Your task to perform on an android device: check data usage Image 0: 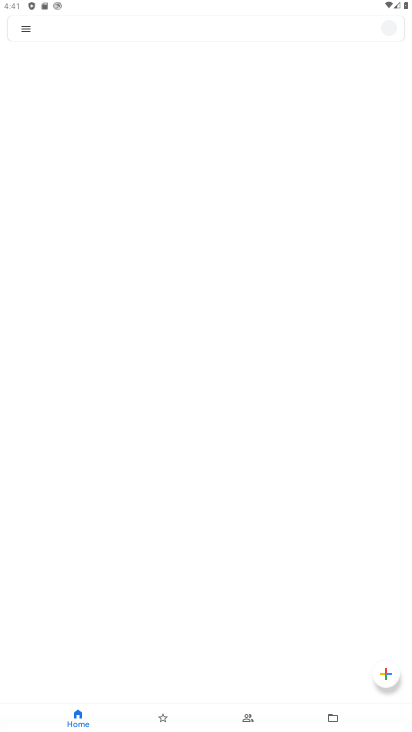
Step 0: press back button
Your task to perform on an android device: check data usage Image 1: 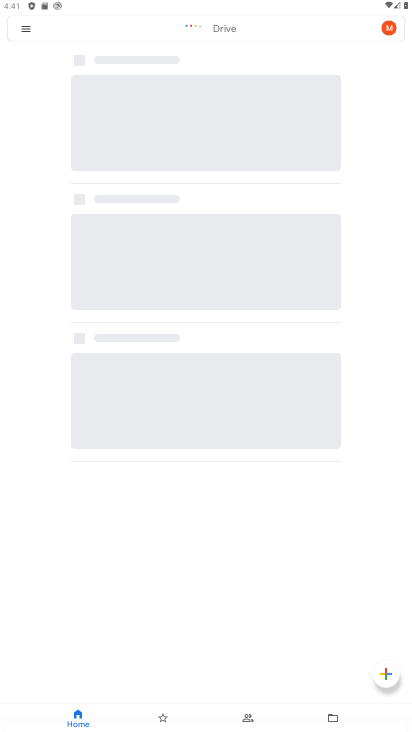
Step 1: press back button
Your task to perform on an android device: check data usage Image 2: 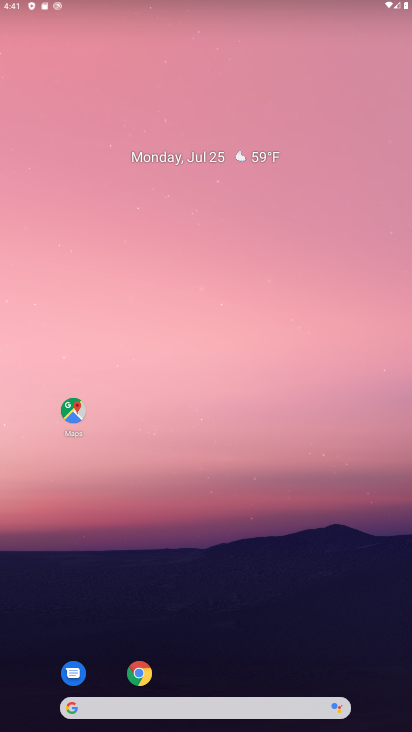
Step 2: press back button
Your task to perform on an android device: check data usage Image 3: 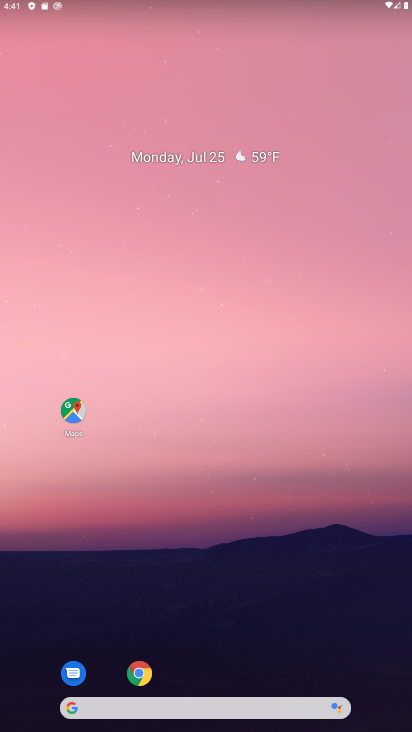
Step 3: press home button
Your task to perform on an android device: check data usage Image 4: 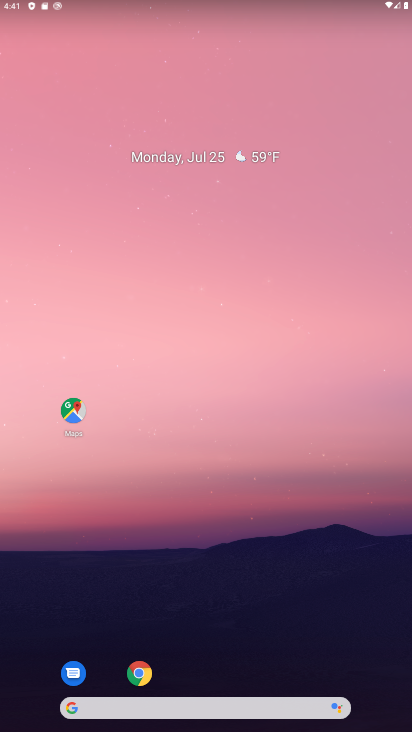
Step 4: drag from (236, 577) to (161, 73)
Your task to perform on an android device: check data usage Image 5: 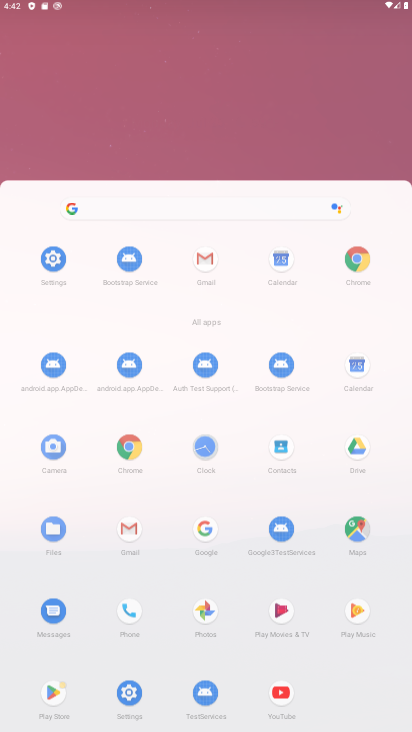
Step 5: drag from (230, 519) to (262, 170)
Your task to perform on an android device: check data usage Image 6: 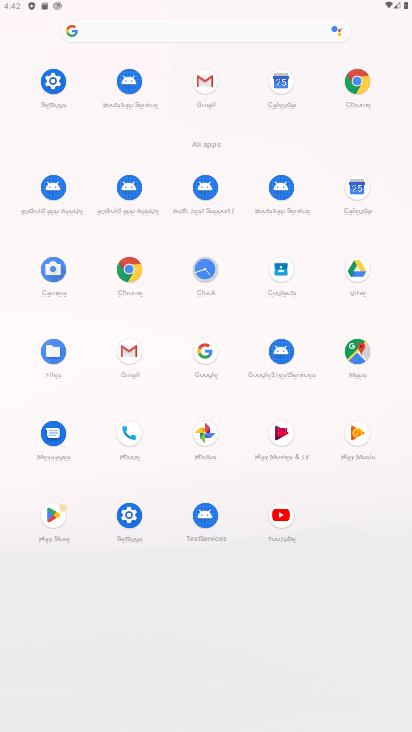
Step 6: click (122, 511)
Your task to perform on an android device: check data usage Image 7: 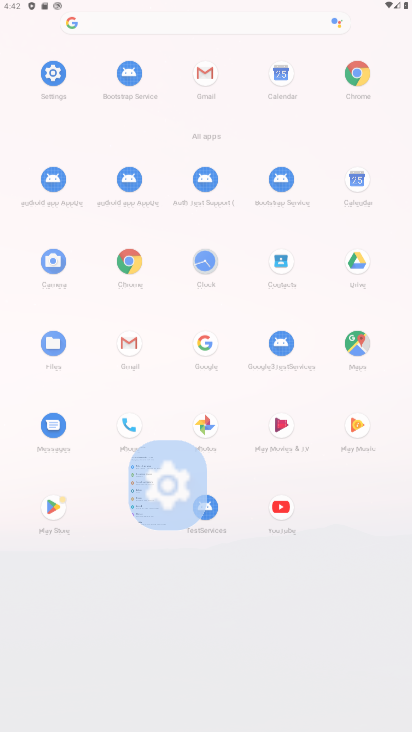
Step 7: click (126, 521)
Your task to perform on an android device: check data usage Image 8: 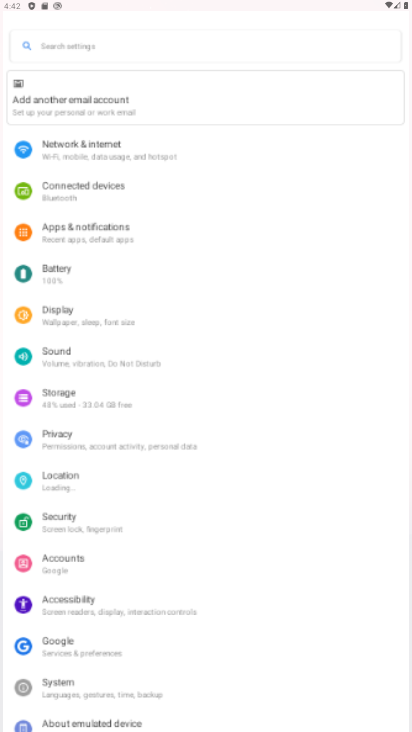
Step 8: click (126, 526)
Your task to perform on an android device: check data usage Image 9: 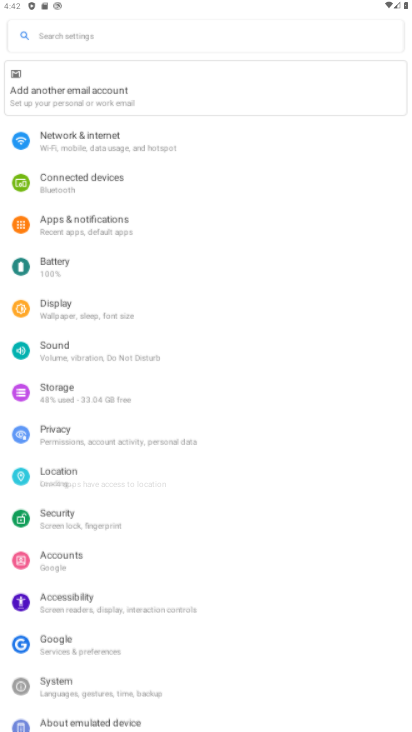
Step 9: click (127, 527)
Your task to perform on an android device: check data usage Image 10: 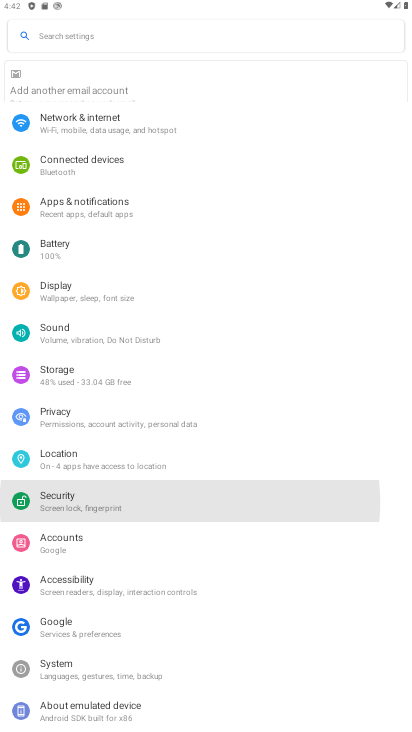
Step 10: click (132, 523)
Your task to perform on an android device: check data usage Image 11: 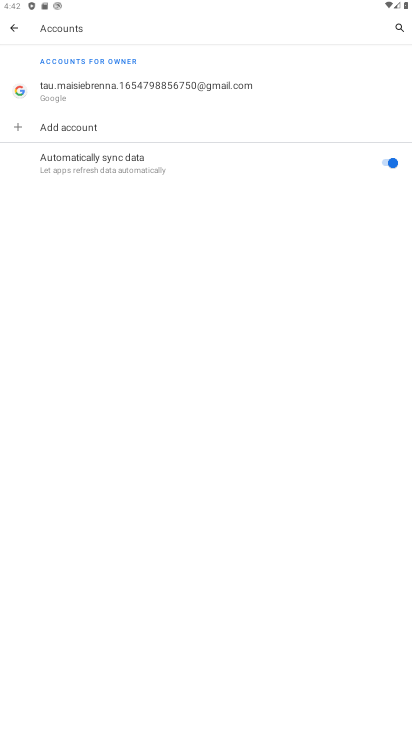
Step 11: click (91, 87)
Your task to perform on an android device: check data usage Image 12: 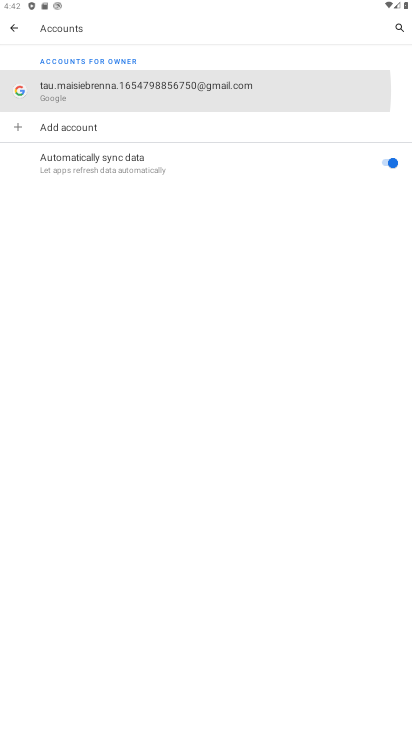
Step 12: click (84, 109)
Your task to perform on an android device: check data usage Image 13: 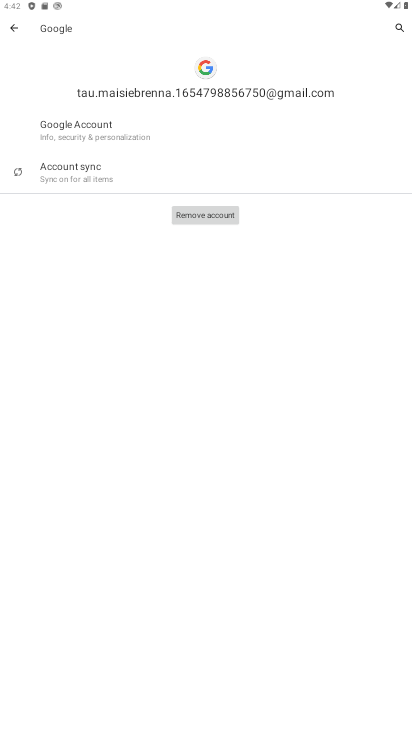
Step 13: click (6, 27)
Your task to perform on an android device: check data usage Image 14: 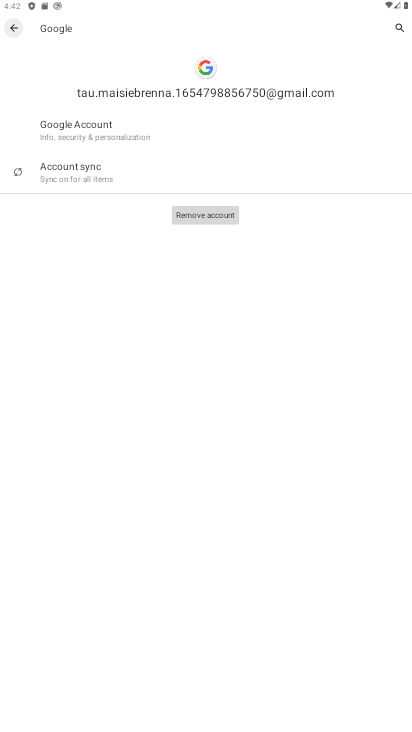
Step 14: click (7, 27)
Your task to perform on an android device: check data usage Image 15: 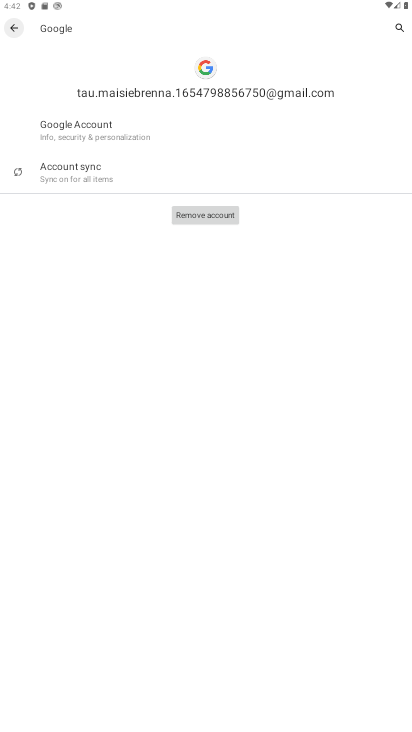
Step 15: click (8, 32)
Your task to perform on an android device: check data usage Image 16: 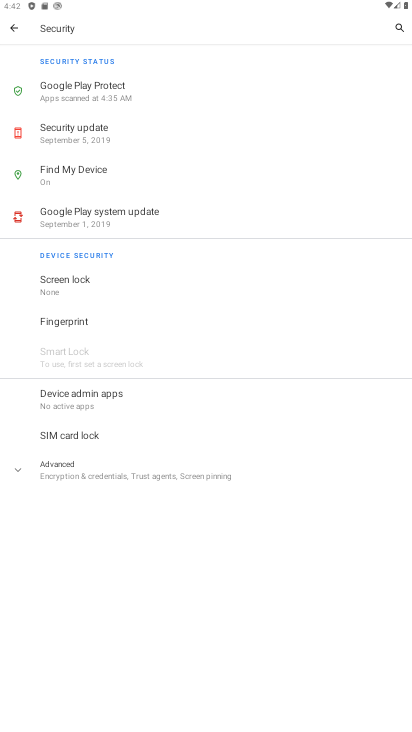
Step 16: click (14, 30)
Your task to perform on an android device: check data usage Image 17: 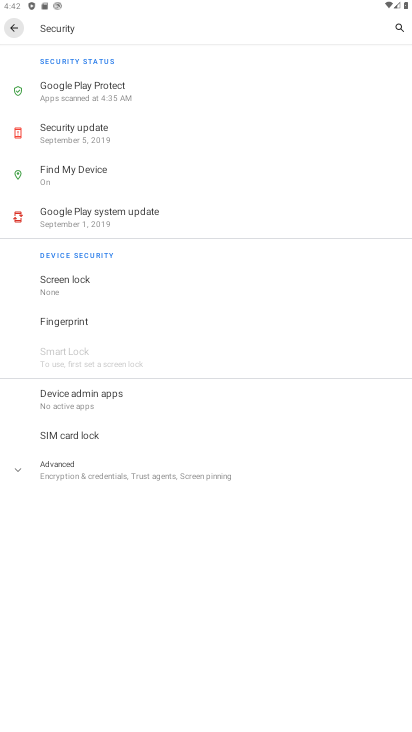
Step 17: click (3, 26)
Your task to perform on an android device: check data usage Image 18: 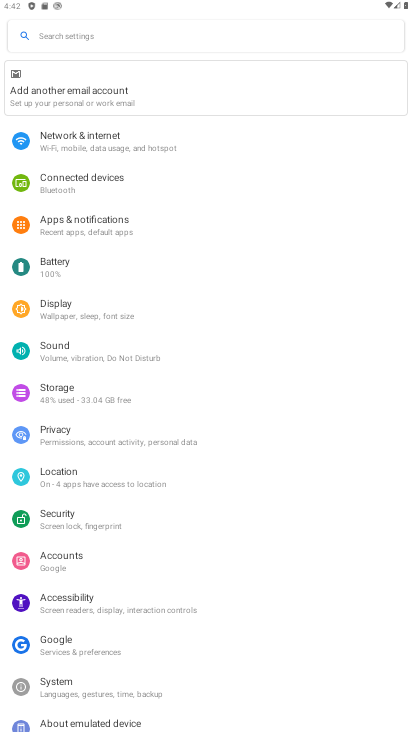
Step 18: click (72, 145)
Your task to perform on an android device: check data usage Image 19: 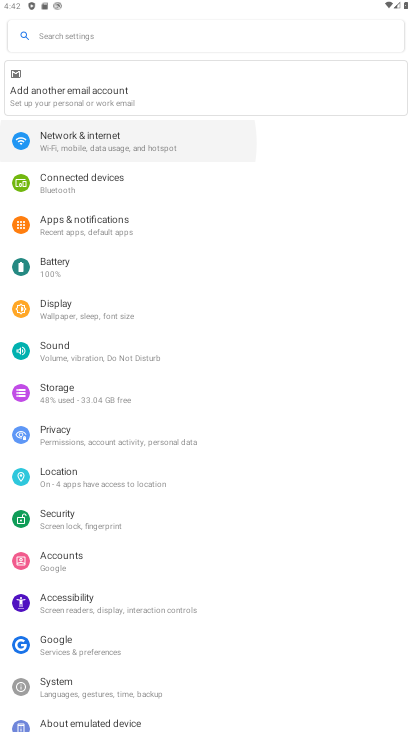
Step 19: click (73, 145)
Your task to perform on an android device: check data usage Image 20: 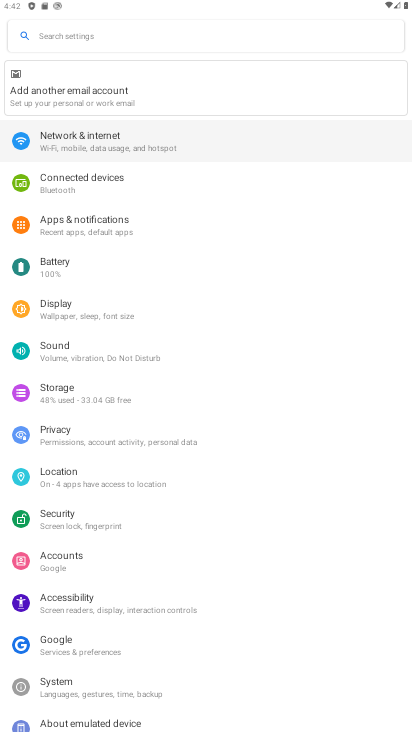
Step 20: click (77, 145)
Your task to perform on an android device: check data usage Image 21: 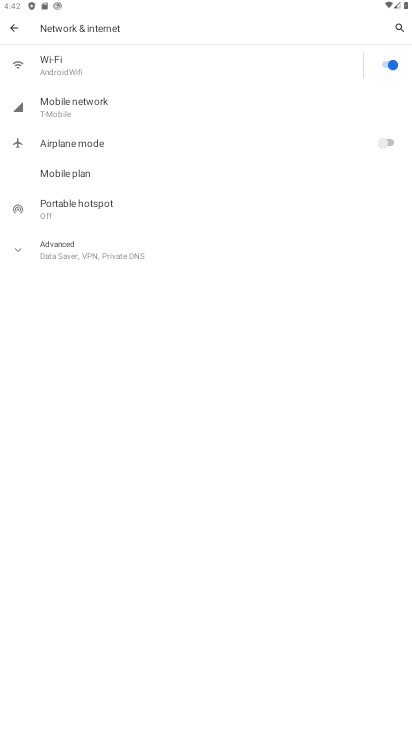
Step 21: click (21, 33)
Your task to perform on an android device: check data usage Image 22: 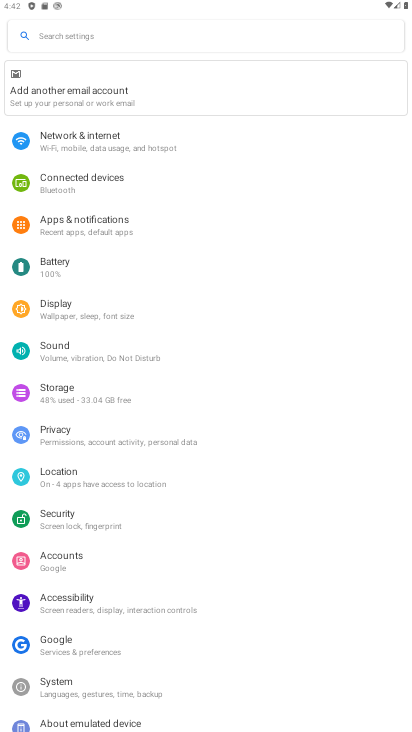
Step 22: click (80, 153)
Your task to perform on an android device: check data usage Image 23: 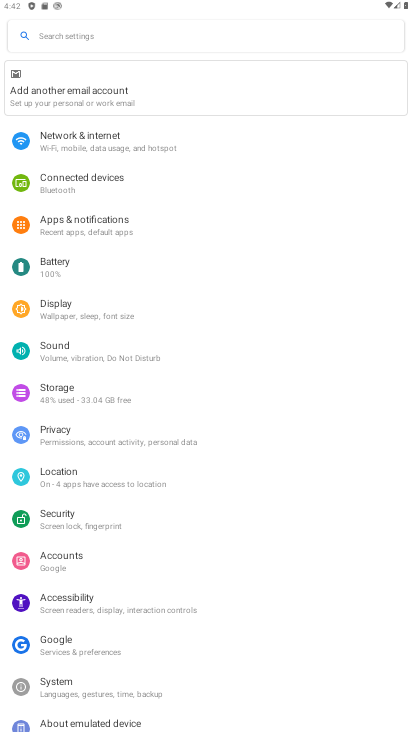
Step 23: click (88, 149)
Your task to perform on an android device: check data usage Image 24: 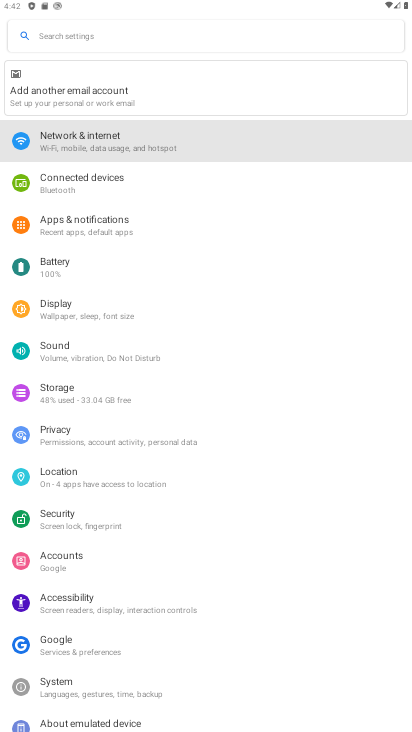
Step 24: click (89, 156)
Your task to perform on an android device: check data usage Image 25: 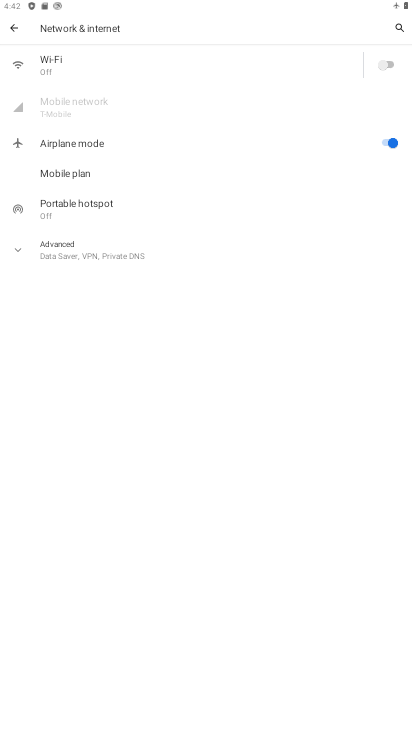
Step 25: click (384, 70)
Your task to perform on an android device: check data usage Image 26: 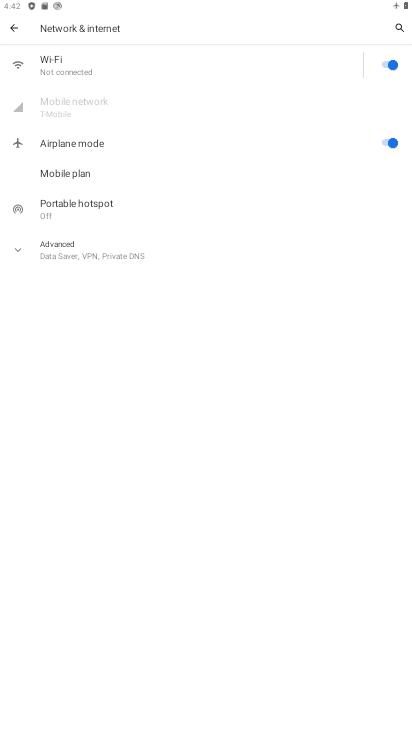
Step 26: click (395, 145)
Your task to perform on an android device: check data usage Image 27: 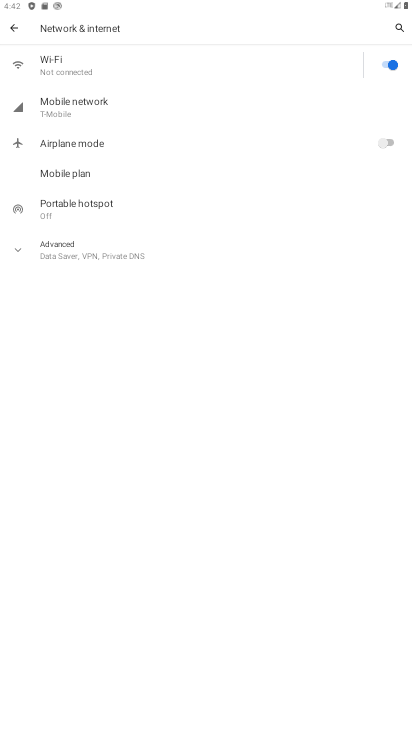
Step 27: click (63, 107)
Your task to perform on an android device: check data usage Image 28: 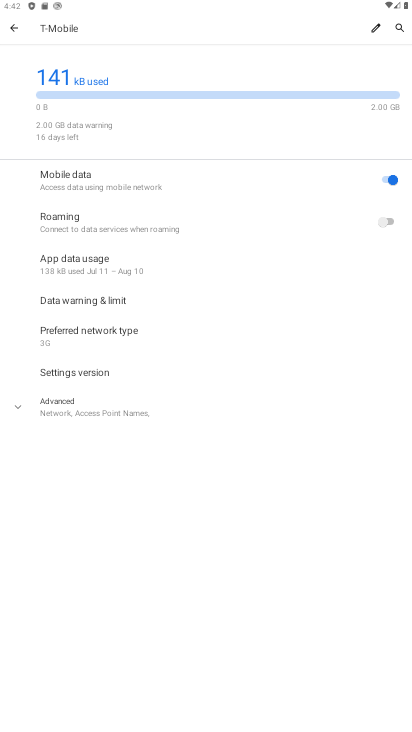
Step 28: task complete